Your task to perform on an android device: turn vacation reply on in the gmail app Image 0: 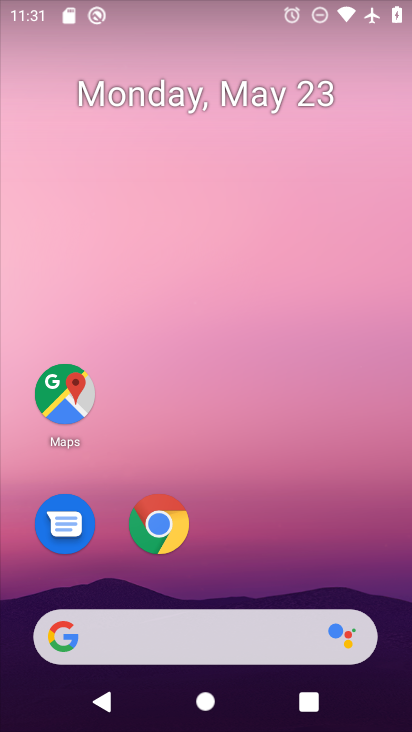
Step 0: drag from (250, 560) to (288, 202)
Your task to perform on an android device: turn vacation reply on in the gmail app Image 1: 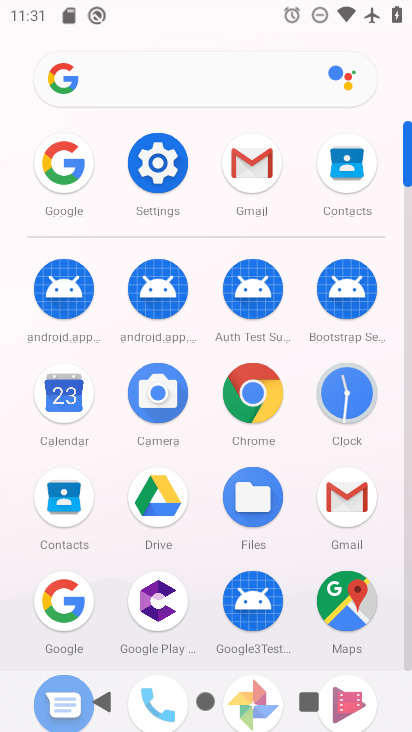
Step 1: click (272, 160)
Your task to perform on an android device: turn vacation reply on in the gmail app Image 2: 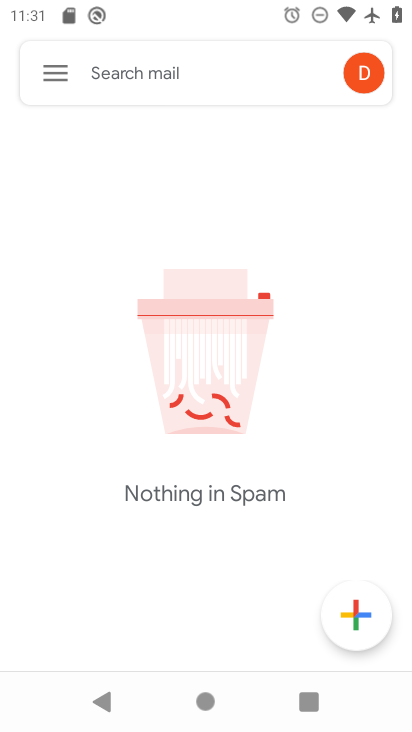
Step 2: click (62, 76)
Your task to perform on an android device: turn vacation reply on in the gmail app Image 3: 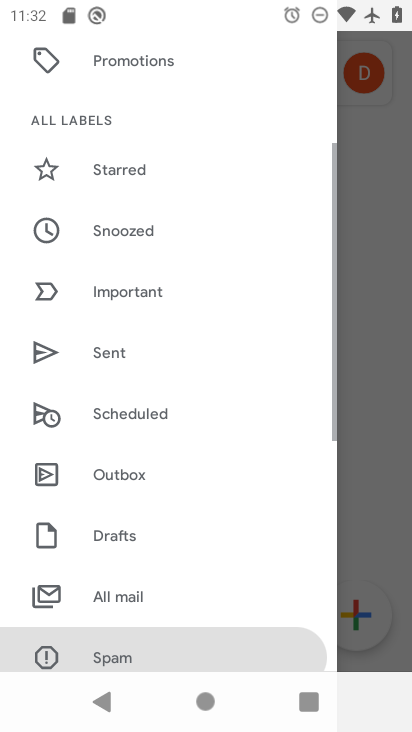
Step 3: drag from (190, 629) to (243, 210)
Your task to perform on an android device: turn vacation reply on in the gmail app Image 4: 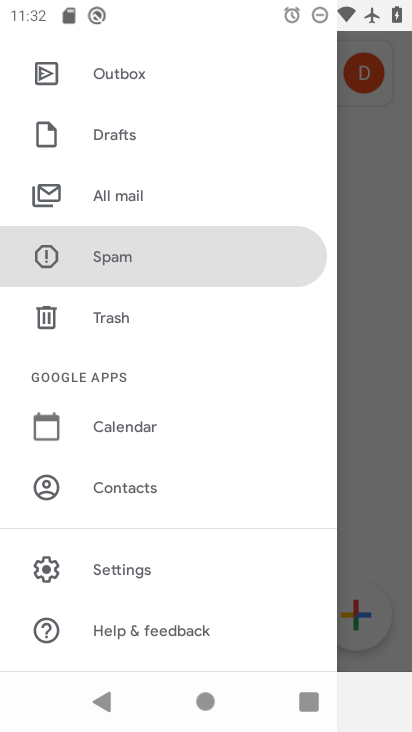
Step 4: click (167, 555)
Your task to perform on an android device: turn vacation reply on in the gmail app Image 5: 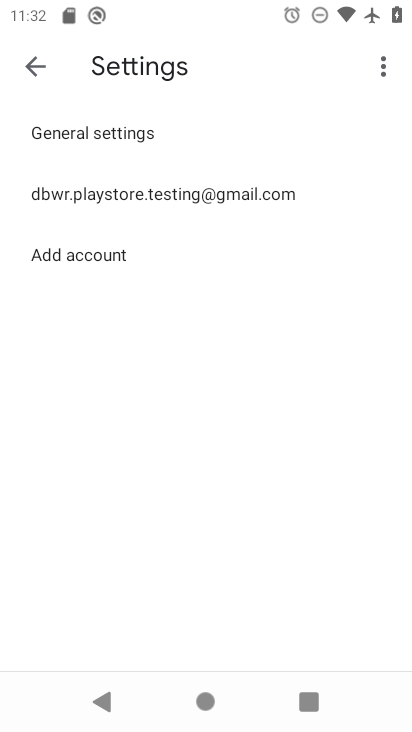
Step 5: click (233, 174)
Your task to perform on an android device: turn vacation reply on in the gmail app Image 6: 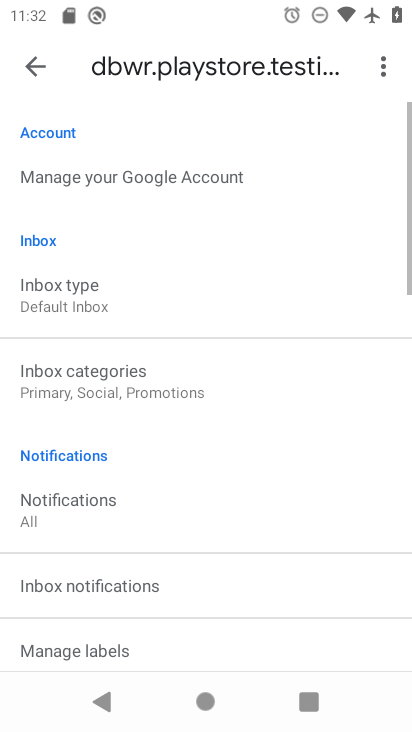
Step 6: drag from (215, 637) to (293, 216)
Your task to perform on an android device: turn vacation reply on in the gmail app Image 7: 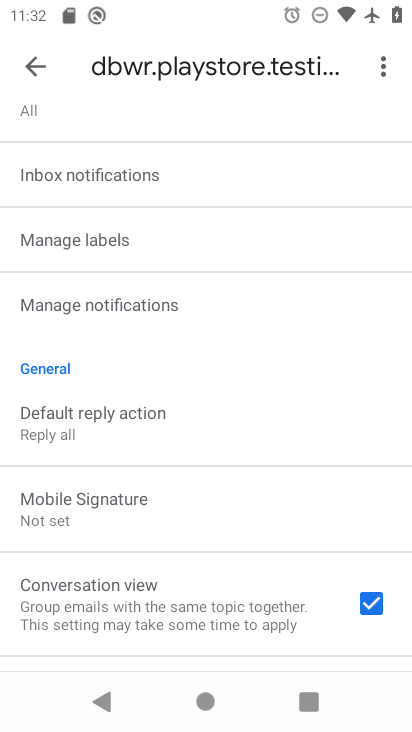
Step 7: drag from (250, 540) to (316, 225)
Your task to perform on an android device: turn vacation reply on in the gmail app Image 8: 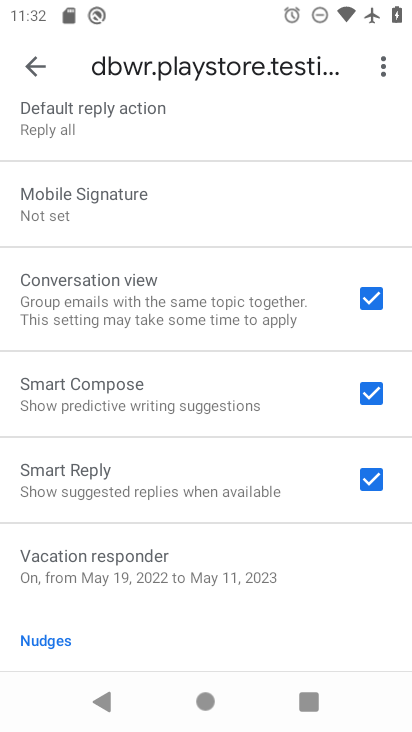
Step 8: click (313, 542)
Your task to perform on an android device: turn vacation reply on in the gmail app Image 9: 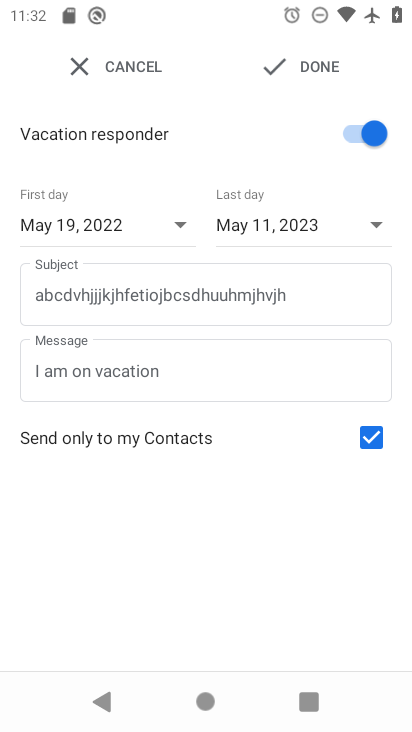
Step 9: task complete